Your task to perform on an android device: Open Google Chrome and click the shortcut for Amazon.com Image 0: 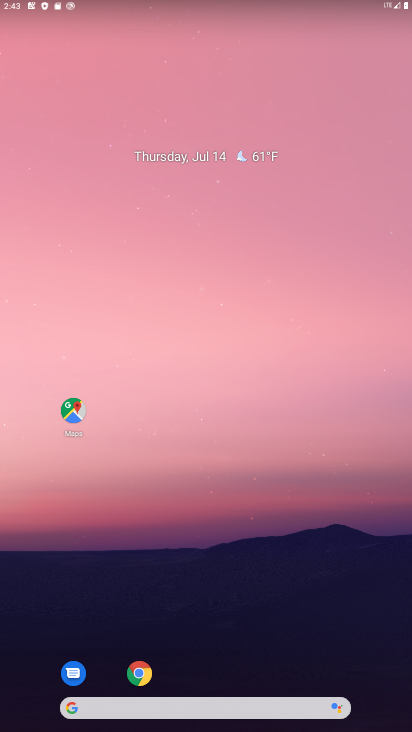
Step 0: click (138, 664)
Your task to perform on an android device: Open Google Chrome and click the shortcut for Amazon.com Image 1: 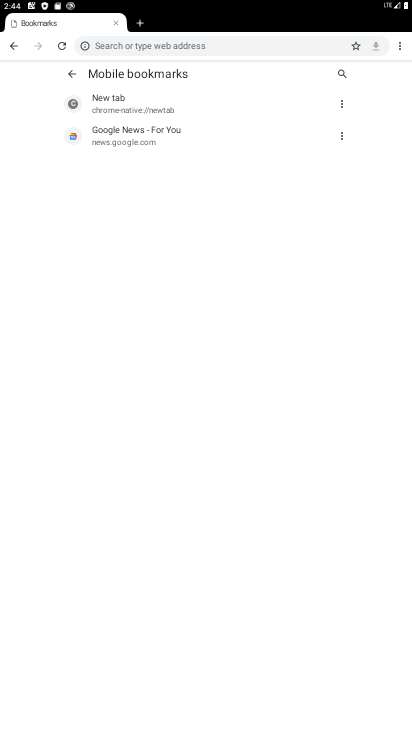
Step 1: click (141, 21)
Your task to perform on an android device: Open Google Chrome and click the shortcut for Amazon.com Image 2: 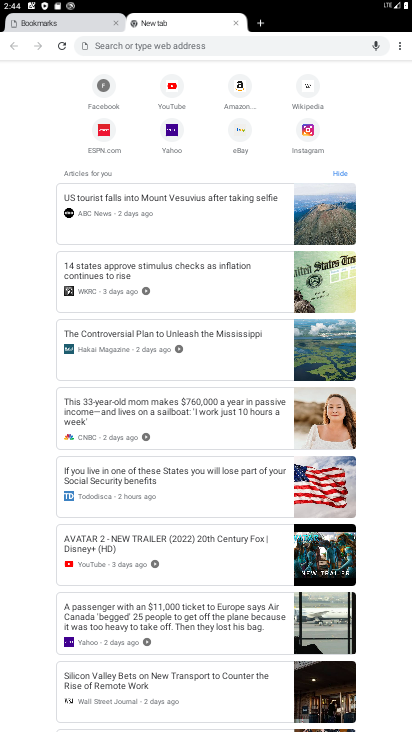
Step 2: click (244, 89)
Your task to perform on an android device: Open Google Chrome and click the shortcut for Amazon.com Image 3: 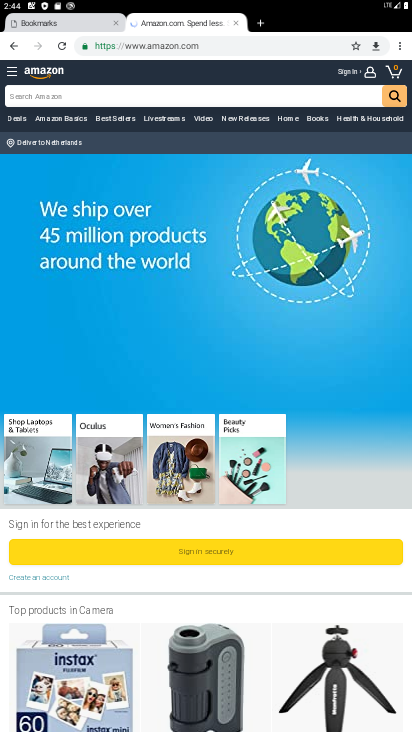
Step 3: task complete